Your task to perform on an android device: Do I have any events this weekend? Image 0: 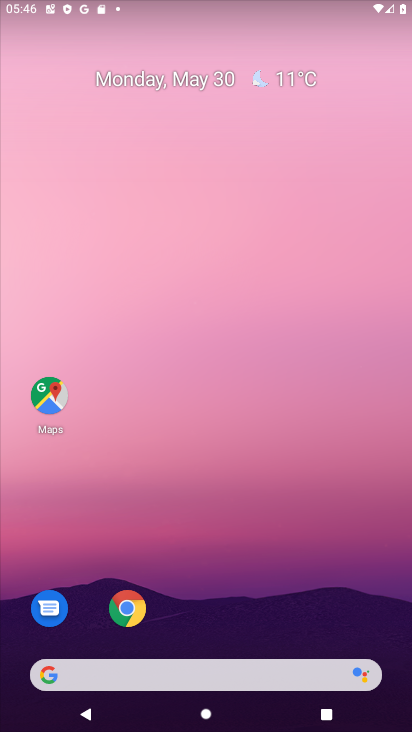
Step 0: drag from (155, 604) to (149, 303)
Your task to perform on an android device: Do I have any events this weekend? Image 1: 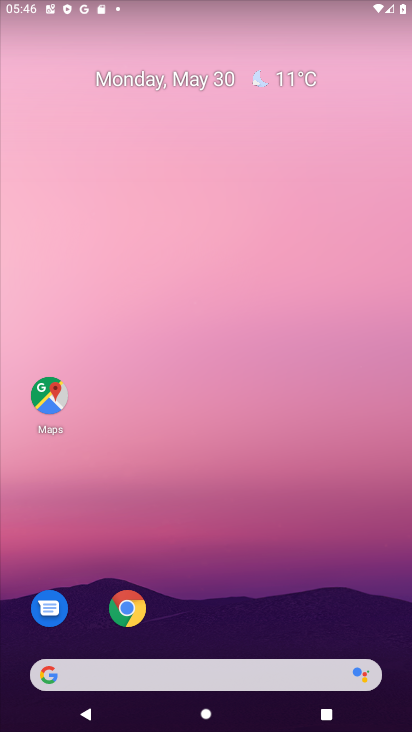
Step 1: drag from (202, 646) to (200, 216)
Your task to perform on an android device: Do I have any events this weekend? Image 2: 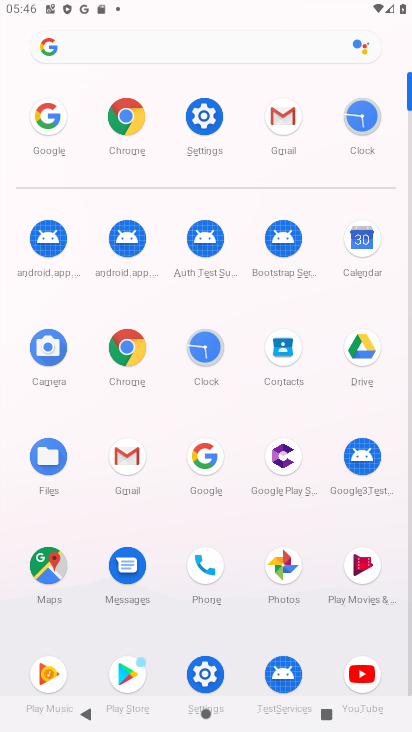
Step 2: click (369, 237)
Your task to perform on an android device: Do I have any events this weekend? Image 3: 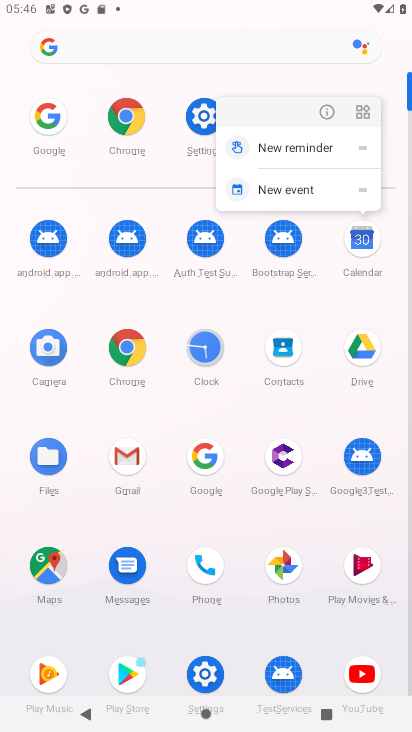
Step 3: click (367, 239)
Your task to perform on an android device: Do I have any events this weekend? Image 4: 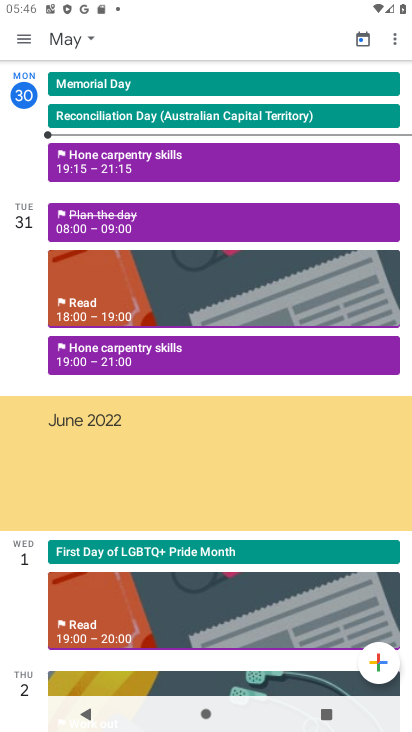
Step 4: click (77, 36)
Your task to perform on an android device: Do I have any events this weekend? Image 5: 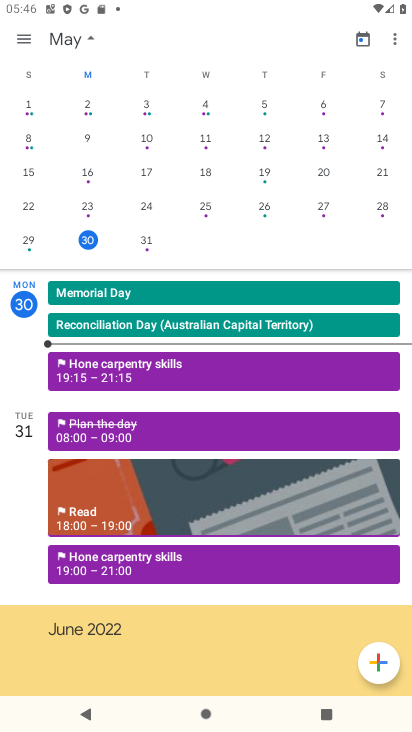
Step 5: drag from (381, 216) to (0, 199)
Your task to perform on an android device: Do I have any events this weekend? Image 6: 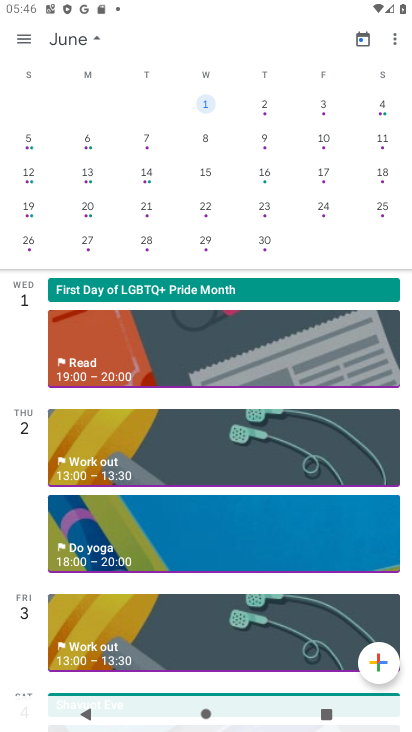
Step 6: click (378, 106)
Your task to perform on an android device: Do I have any events this weekend? Image 7: 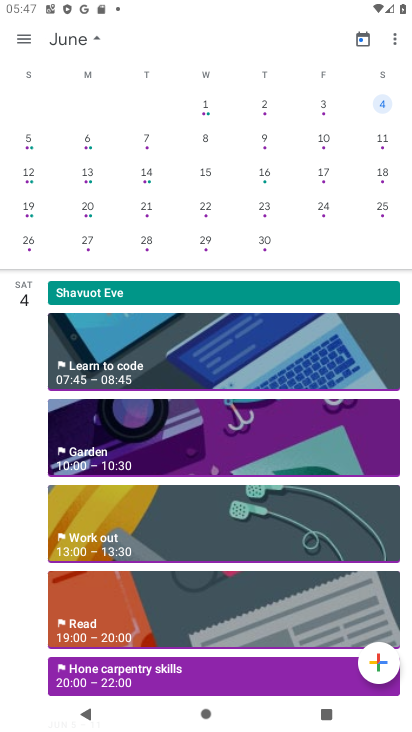
Step 7: task complete